Your task to perform on an android device: toggle wifi Image 0: 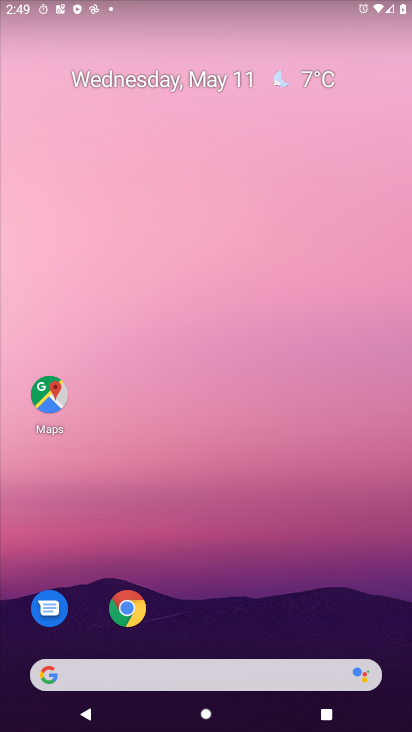
Step 0: drag from (240, 611) to (233, 122)
Your task to perform on an android device: toggle wifi Image 1: 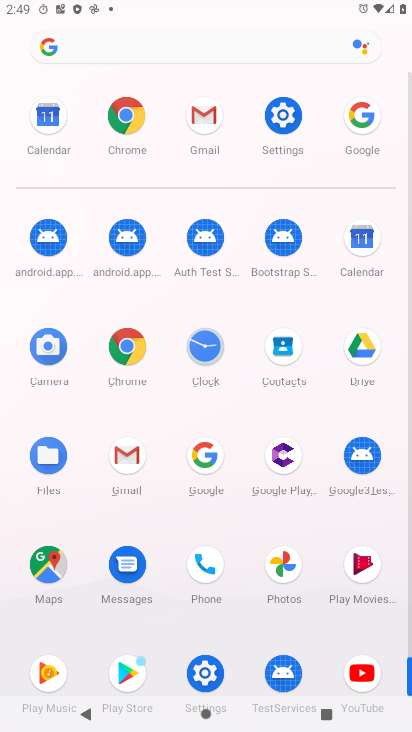
Step 1: click (277, 117)
Your task to perform on an android device: toggle wifi Image 2: 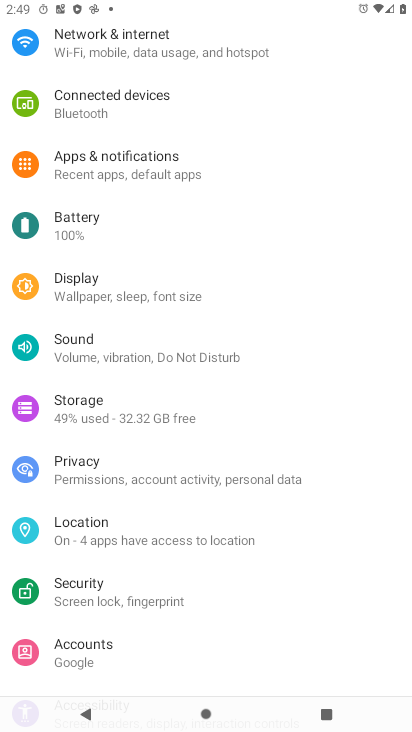
Step 2: drag from (150, 87) to (169, 273)
Your task to perform on an android device: toggle wifi Image 3: 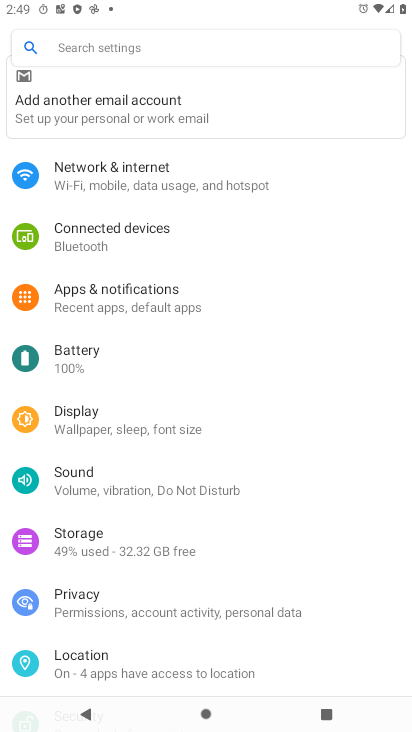
Step 3: click (110, 174)
Your task to perform on an android device: toggle wifi Image 4: 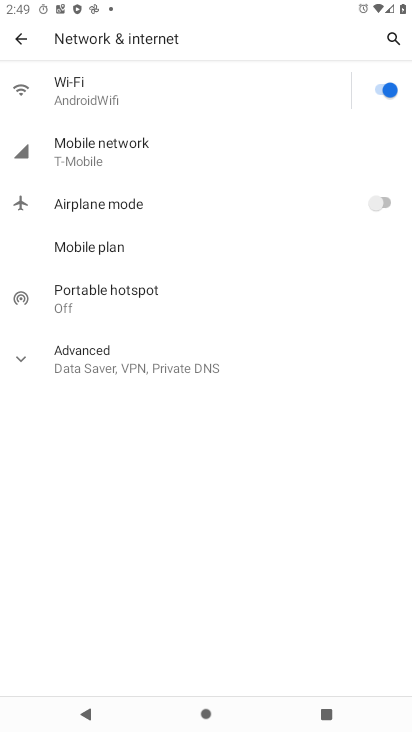
Step 4: click (367, 87)
Your task to perform on an android device: toggle wifi Image 5: 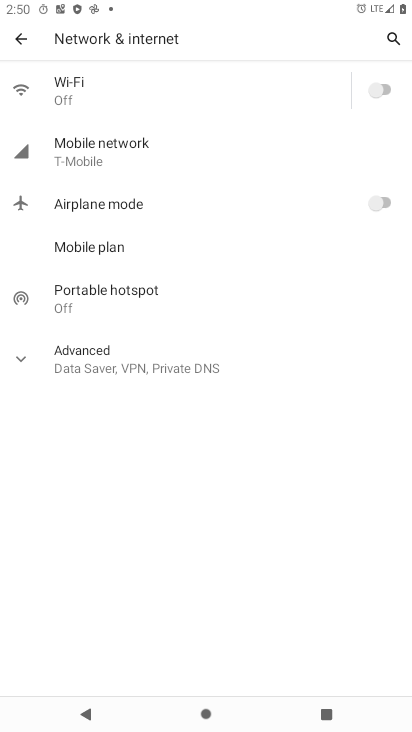
Step 5: task complete